Your task to perform on an android device: allow notifications from all sites in the chrome app Image 0: 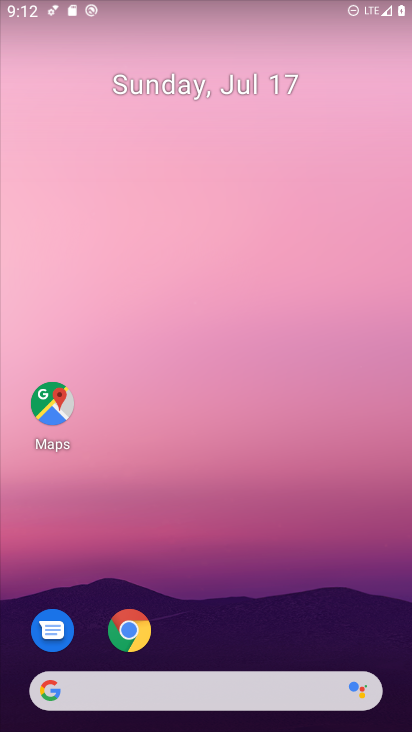
Step 0: drag from (201, 622) to (209, 111)
Your task to perform on an android device: allow notifications from all sites in the chrome app Image 1: 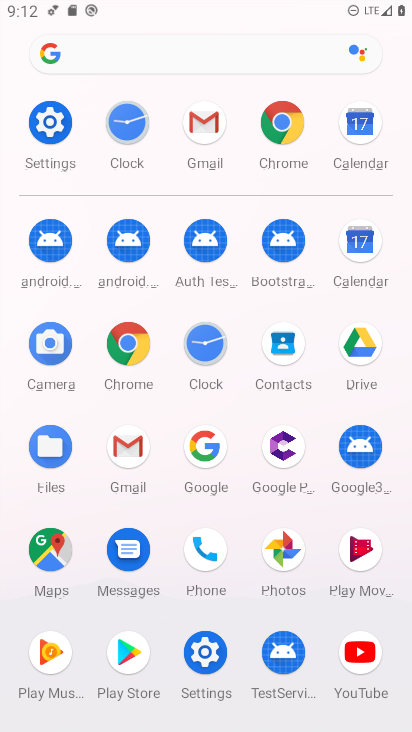
Step 1: click (287, 121)
Your task to perform on an android device: allow notifications from all sites in the chrome app Image 2: 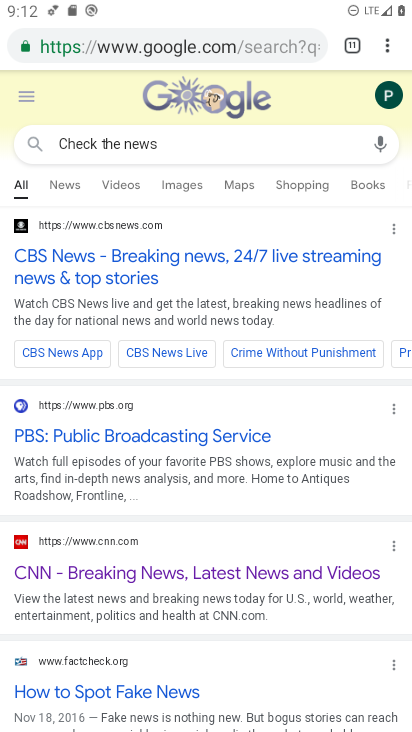
Step 2: click (382, 35)
Your task to perform on an android device: allow notifications from all sites in the chrome app Image 3: 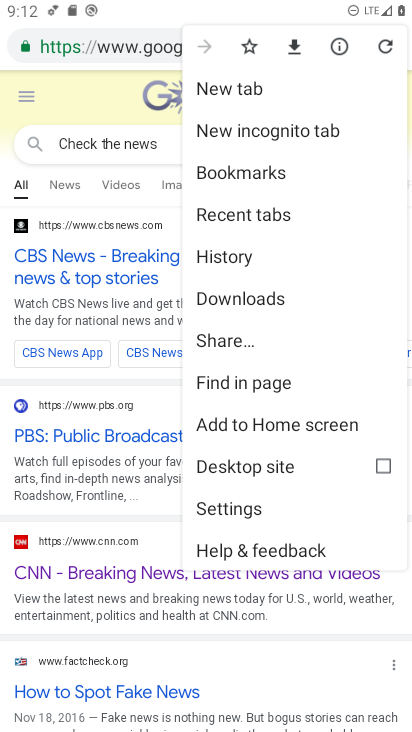
Step 3: click (269, 510)
Your task to perform on an android device: allow notifications from all sites in the chrome app Image 4: 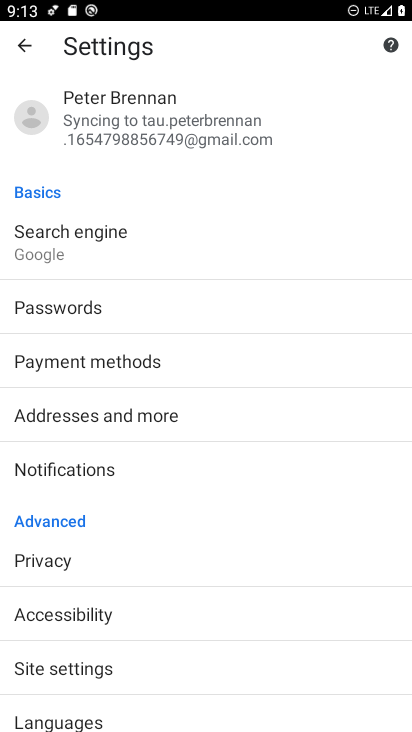
Step 4: click (92, 673)
Your task to perform on an android device: allow notifications from all sites in the chrome app Image 5: 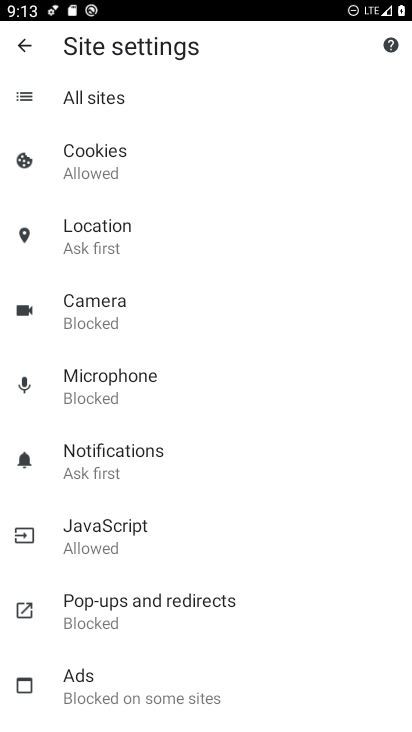
Step 5: click (136, 139)
Your task to perform on an android device: allow notifications from all sites in the chrome app Image 6: 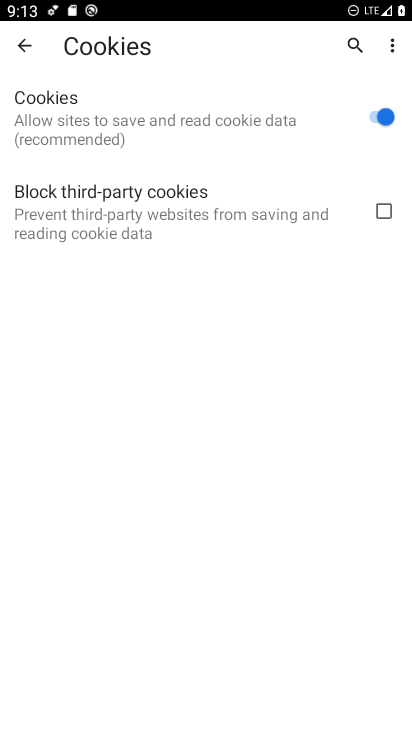
Step 6: click (26, 44)
Your task to perform on an android device: allow notifications from all sites in the chrome app Image 7: 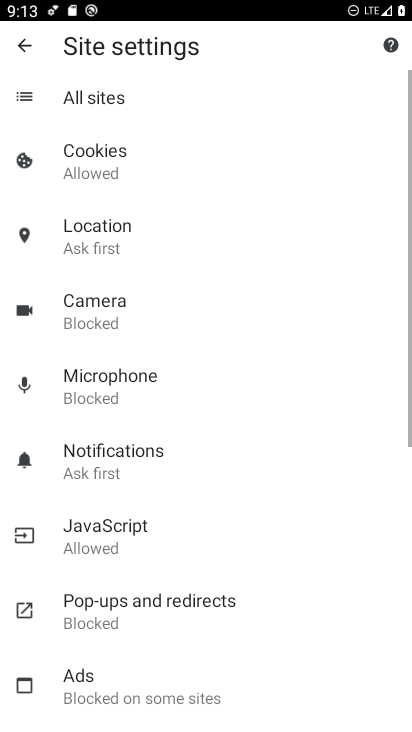
Step 7: click (106, 225)
Your task to perform on an android device: allow notifications from all sites in the chrome app Image 8: 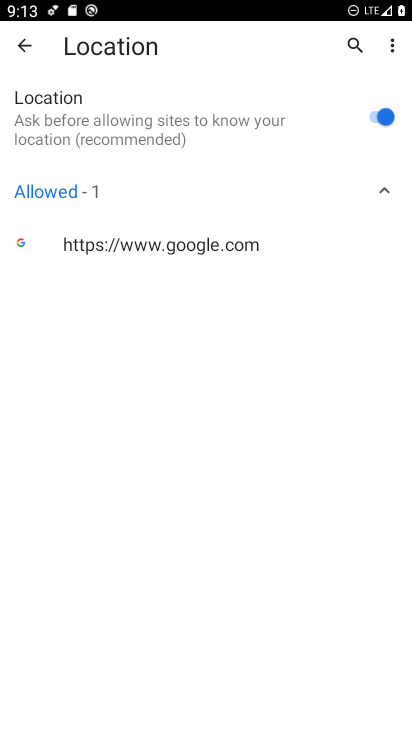
Step 8: click (20, 58)
Your task to perform on an android device: allow notifications from all sites in the chrome app Image 9: 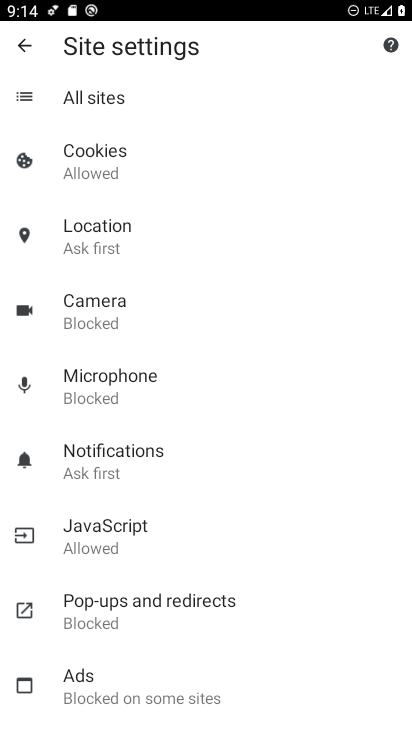
Step 9: click (156, 398)
Your task to perform on an android device: allow notifications from all sites in the chrome app Image 10: 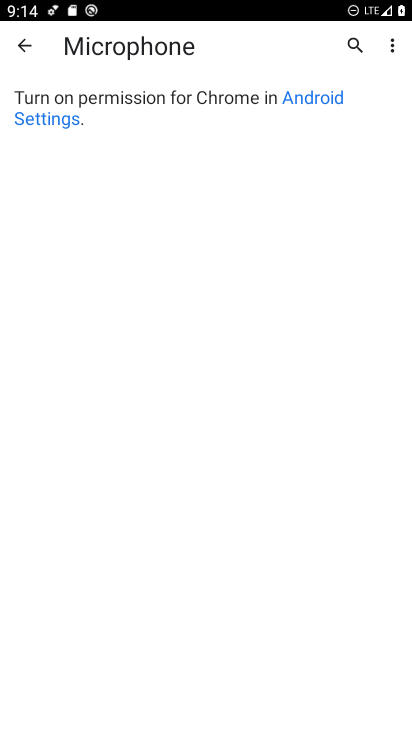
Step 10: click (36, 40)
Your task to perform on an android device: allow notifications from all sites in the chrome app Image 11: 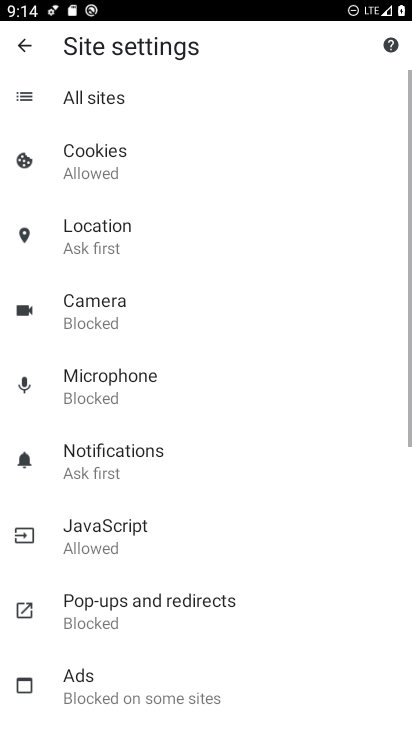
Step 11: click (124, 556)
Your task to perform on an android device: allow notifications from all sites in the chrome app Image 12: 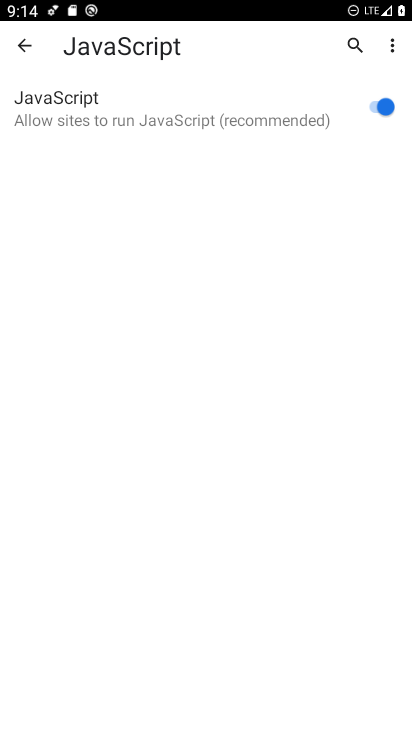
Step 12: click (26, 38)
Your task to perform on an android device: allow notifications from all sites in the chrome app Image 13: 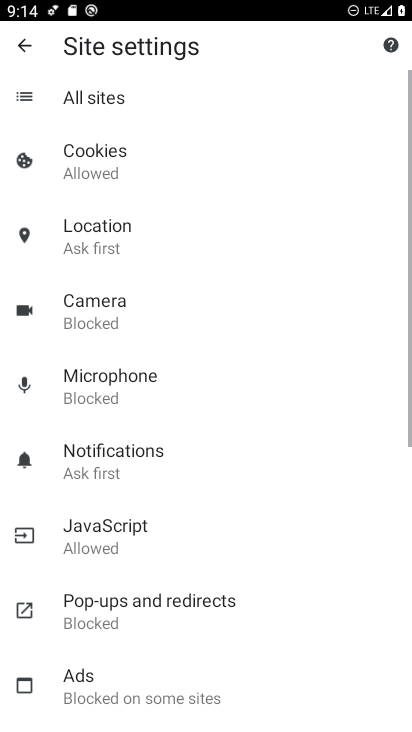
Step 13: click (146, 646)
Your task to perform on an android device: allow notifications from all sites in the chrome app Image 14: 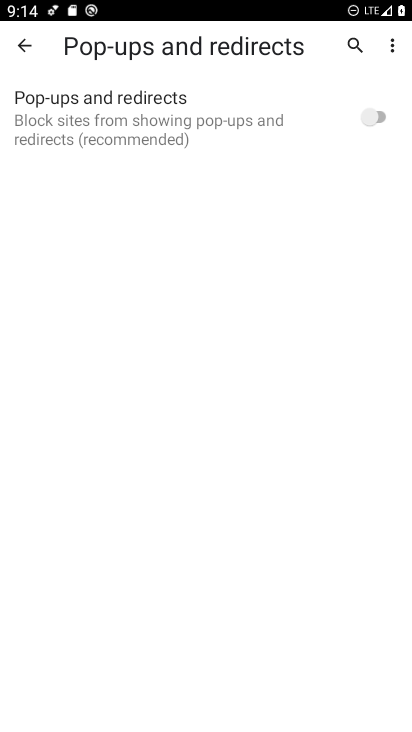
Step 14: click (11, 47)
Your task to perform on an android device: allow notifications from all sites in the chrome app Image 15: 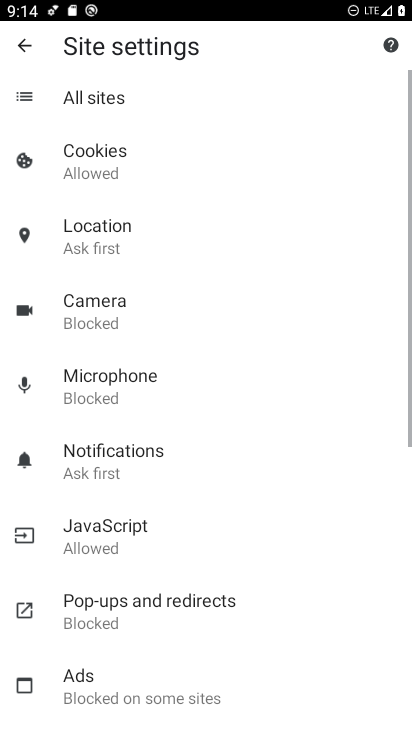
Step 15: click (139, 629)
Your task to perform on an android device: allow notifications from all sites in the chrome app Image 16: 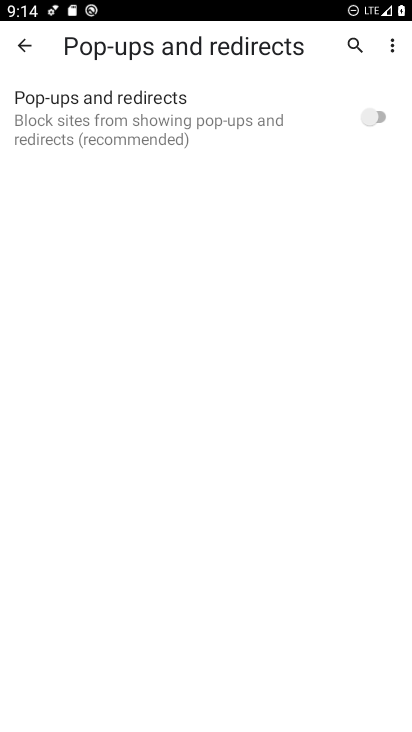
Step 16: click (377, 110)
Your task to perform on an android device: allow notifications from all sites in the chrome app Image 17: 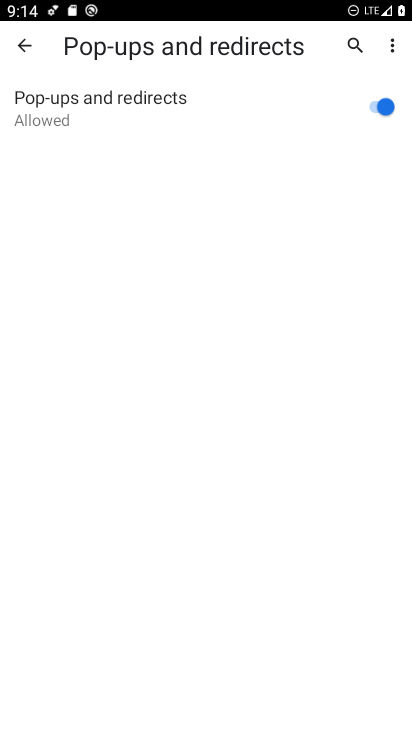
Step 17: click (20, 33)
Your task to perform on an android device: allow notifications from all sites in the chrome app Image 18: 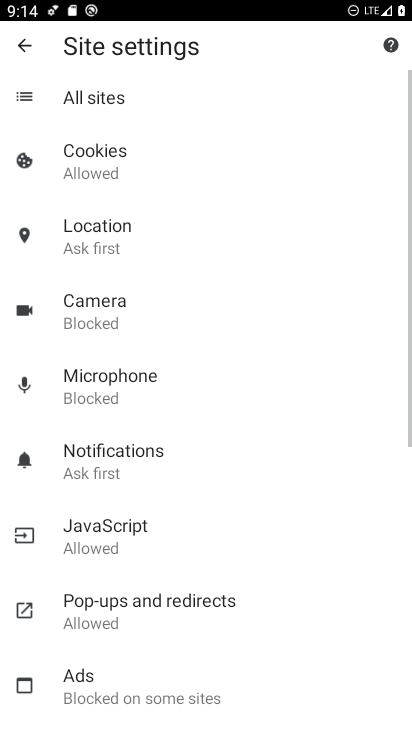
Step 18: task complete